Your task to perform on an android device: clear history in the chrome app Image 0: 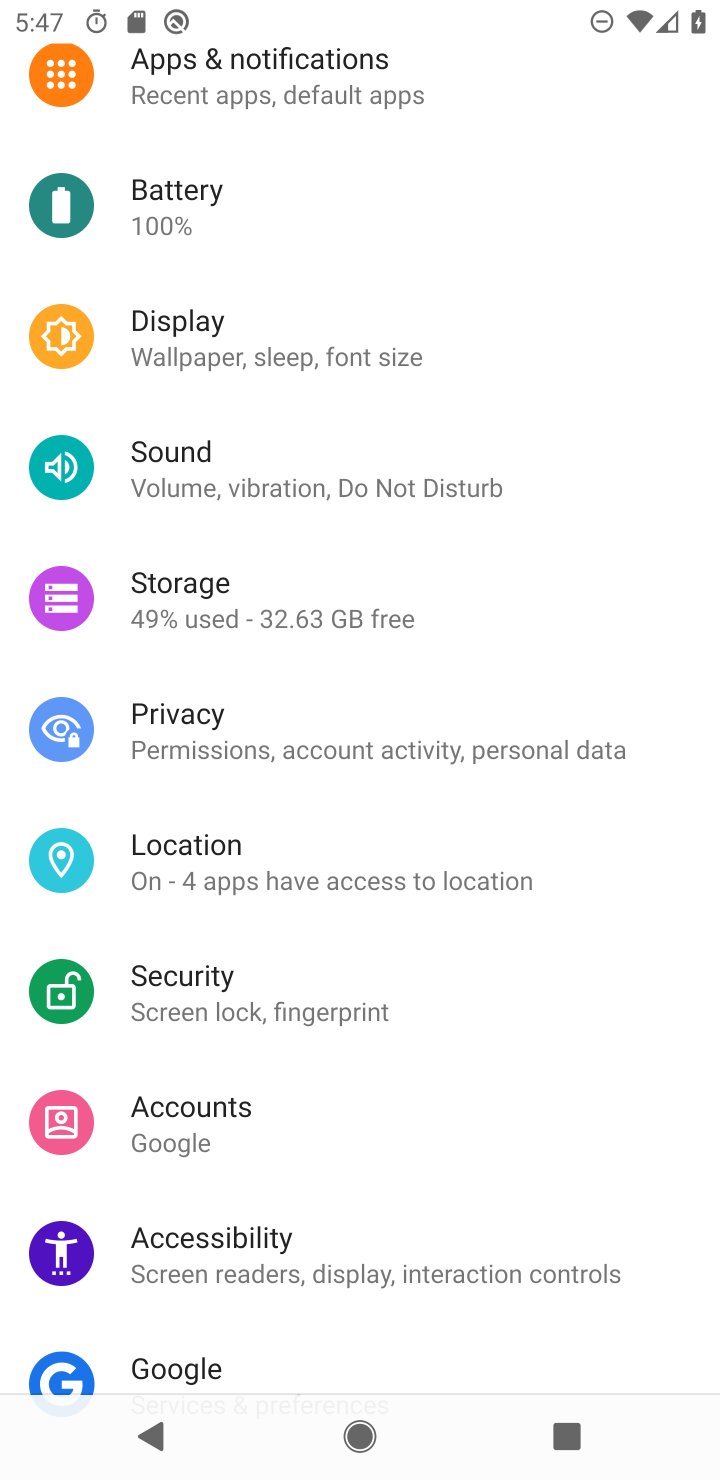
Step 0: press home button
Your task to perform on an android device: clear history in the chrome app Image 1: 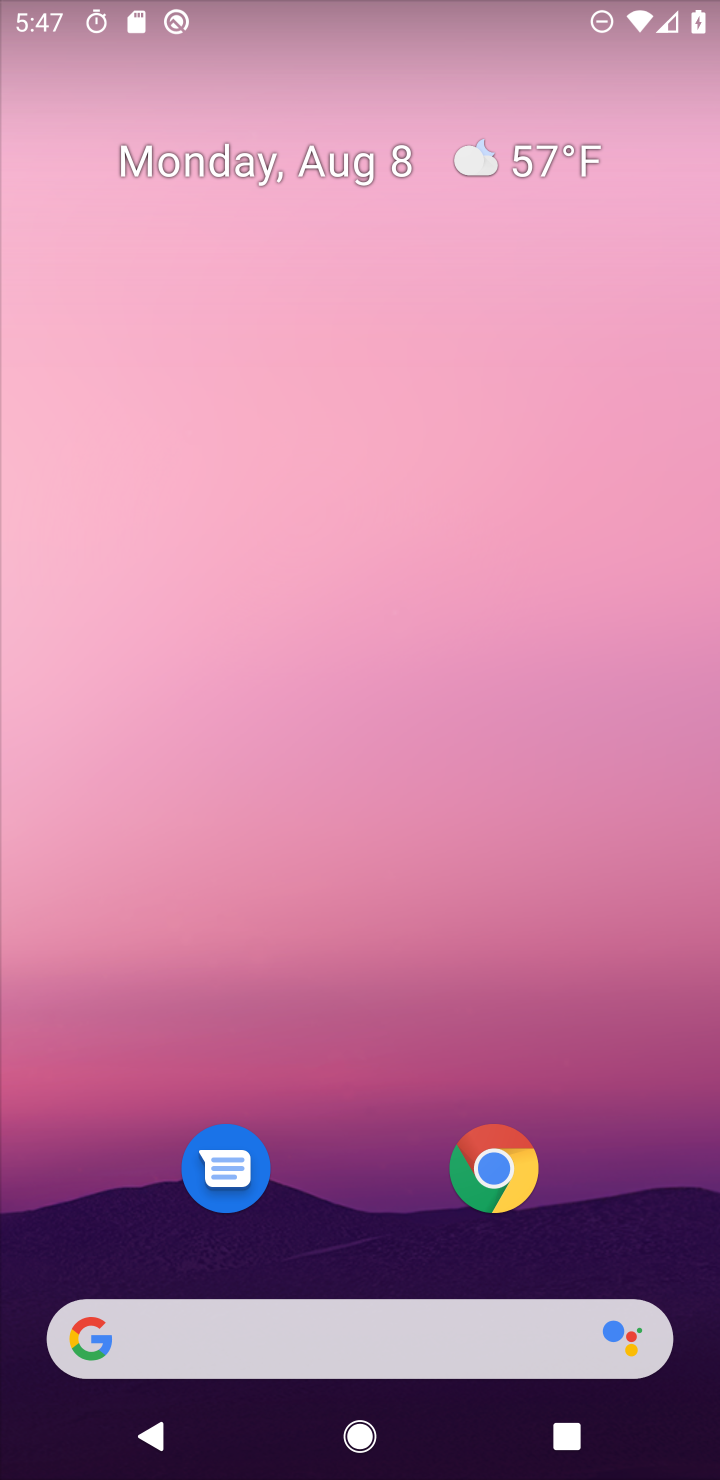
Step 1: click (485, 1203)
Your task to perform on an android device: clear history in the chrome app Image 2: 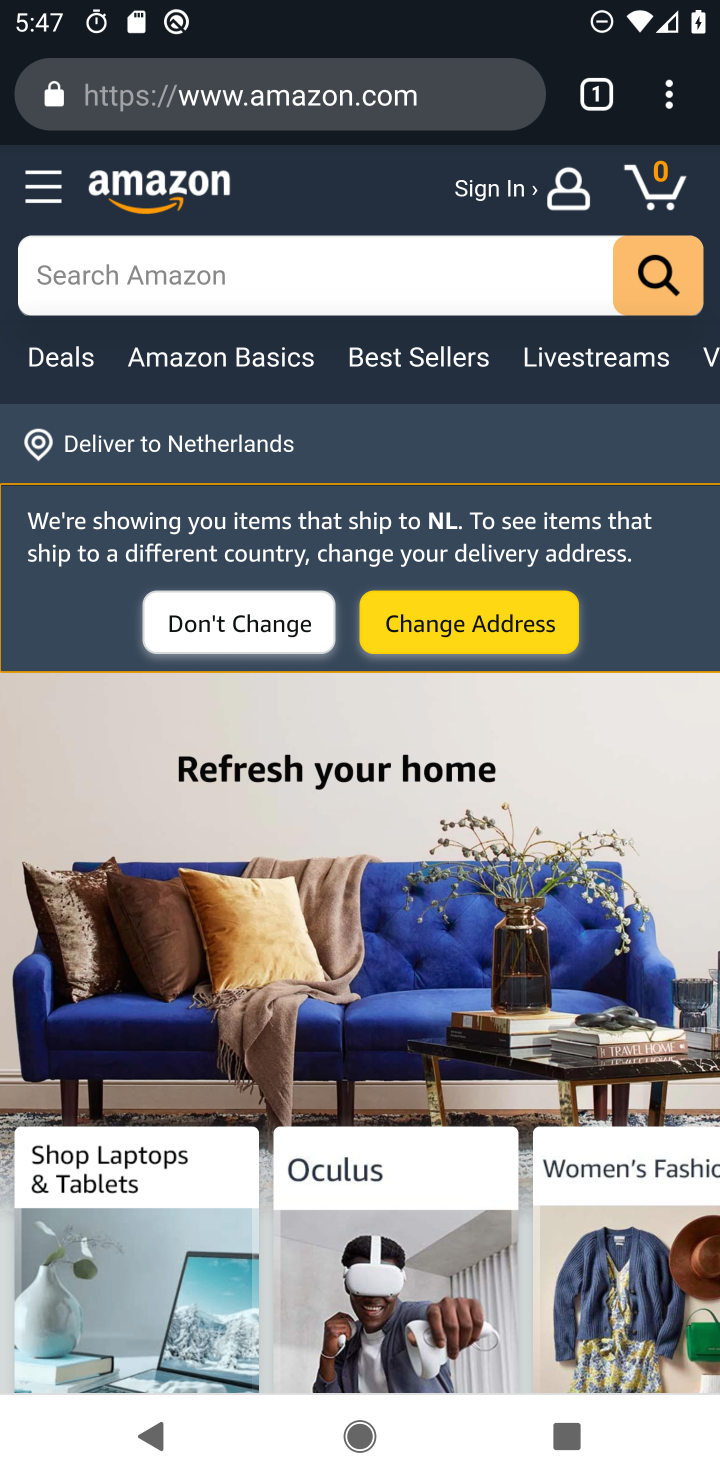
Step 2: drag from (669, 96) to (331, 642)
Your task to perform on an android device: clear history in the chrome app Image 3: 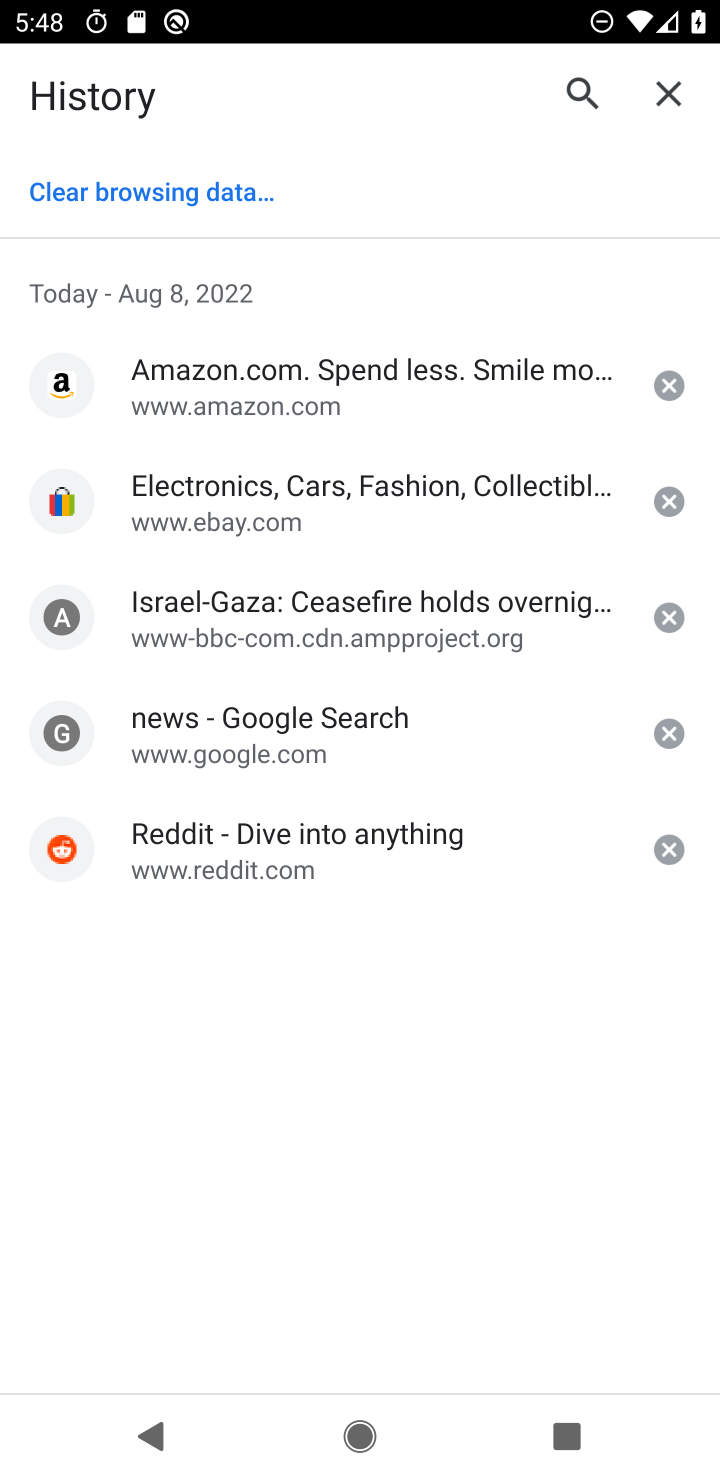
Step 3: click (203, 197)
Your task to perform on an android device: clear history in the chrome app Image 4: 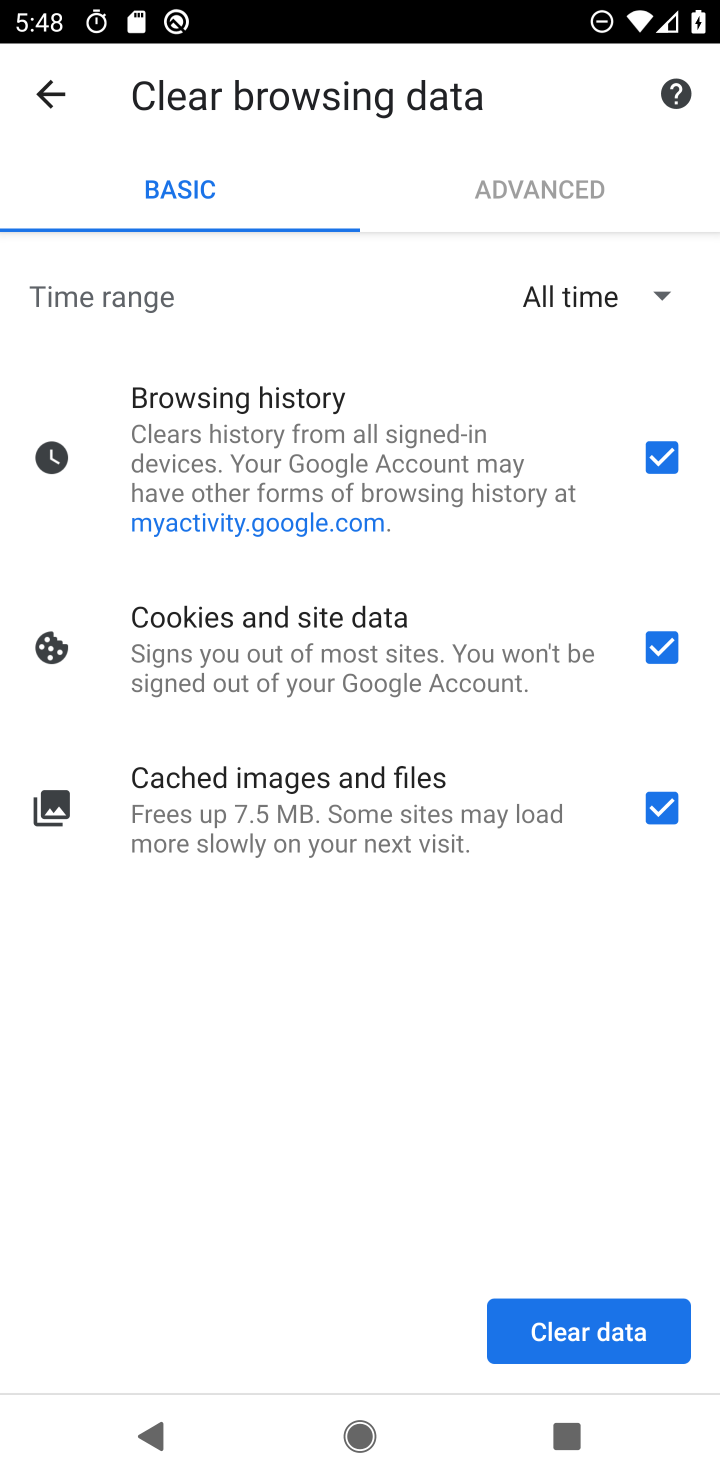
Step 4: click (597, 1331)
Your task to perform on an android device: clear history in the chrome app Image 5: 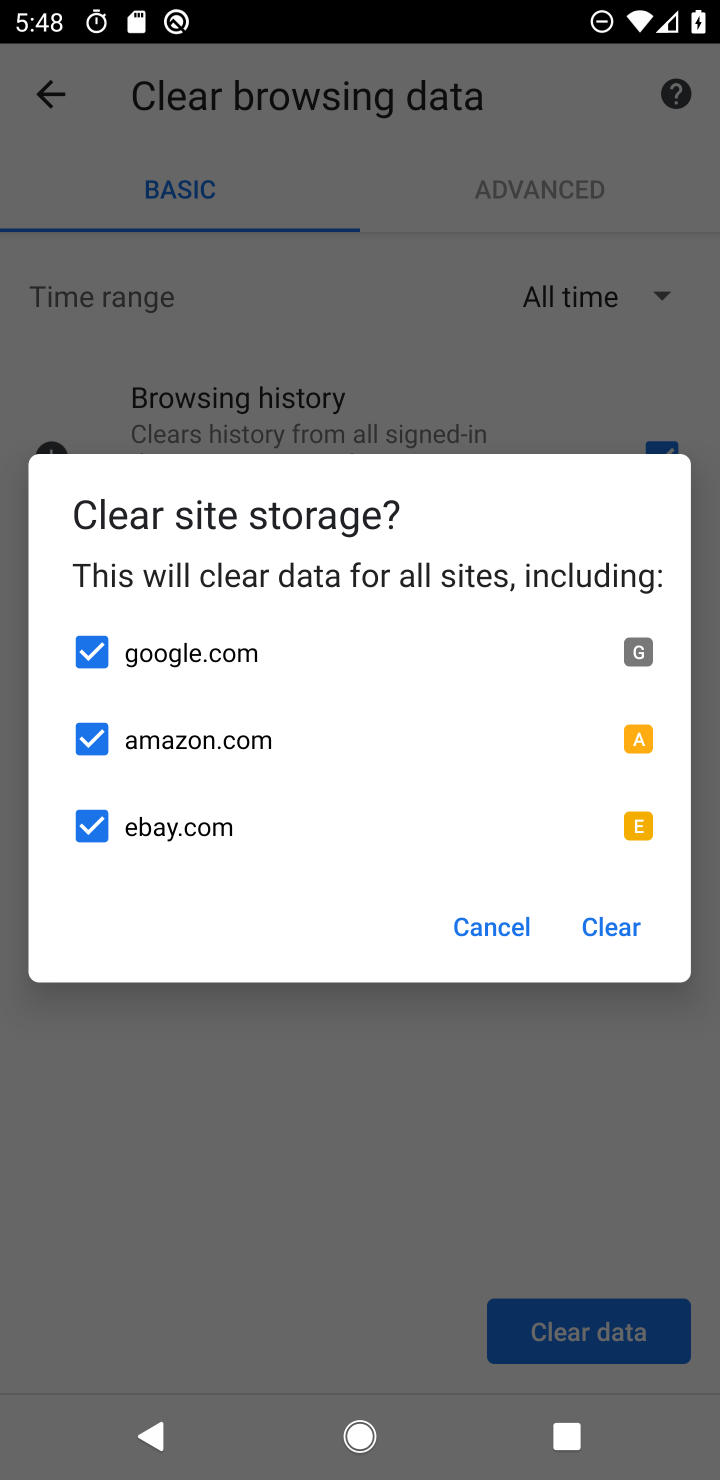
Step 5: click (611, 924)
Your task to perform on an android device: clear history in the chrome app Image 6: 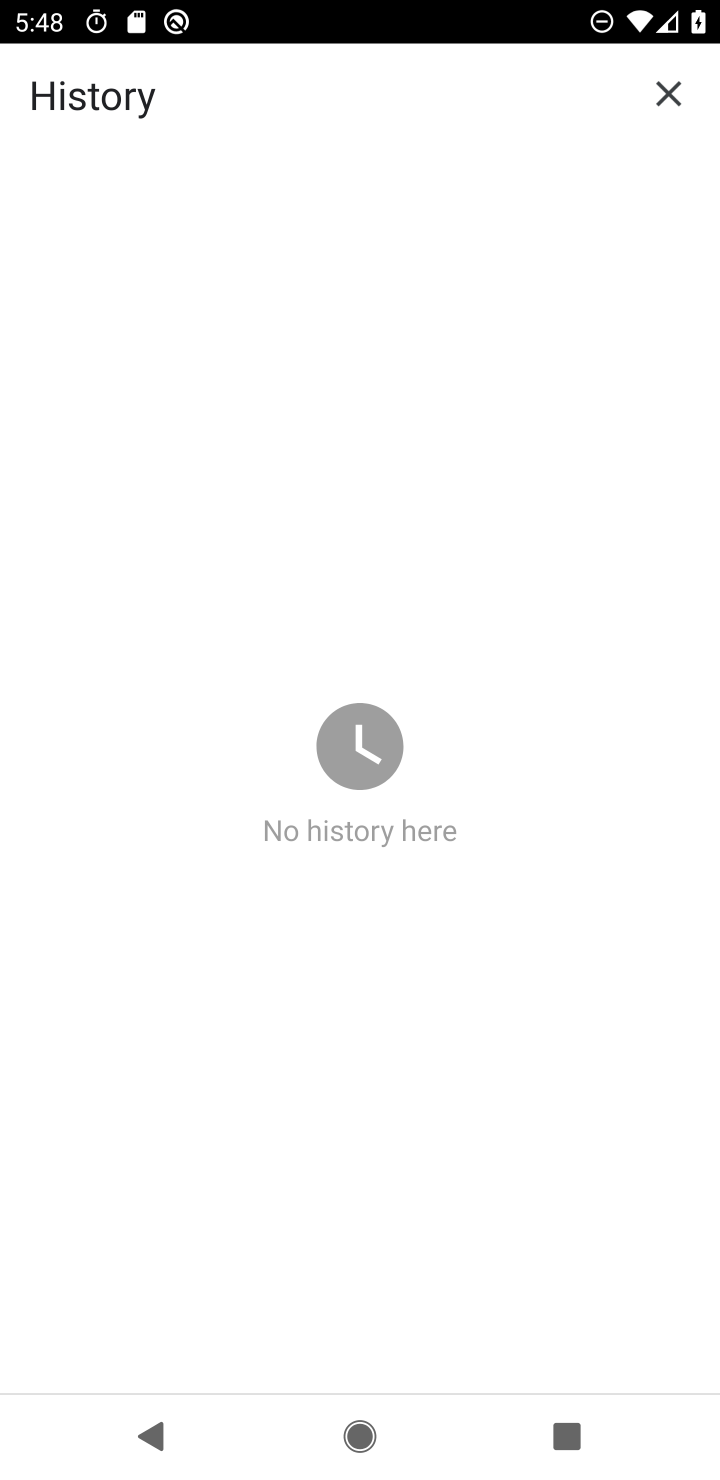
Step 6: task complete